Your task to perform on an android device: Go to location settings Image 0: 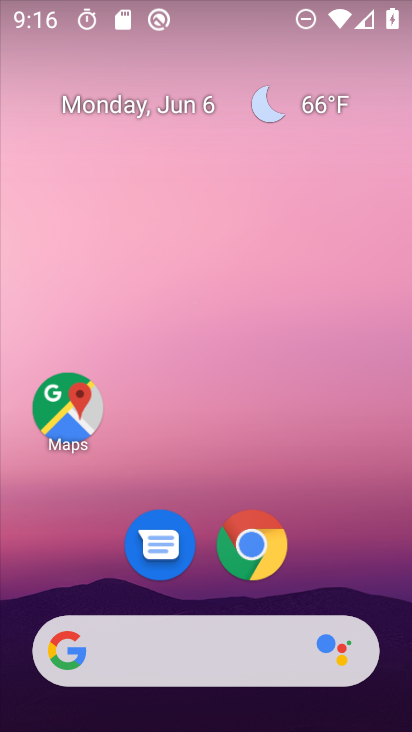
Step 0: drag from (220, 591) to (218, 0)
Your task to perform on an android device: Go to location settings Image 1: 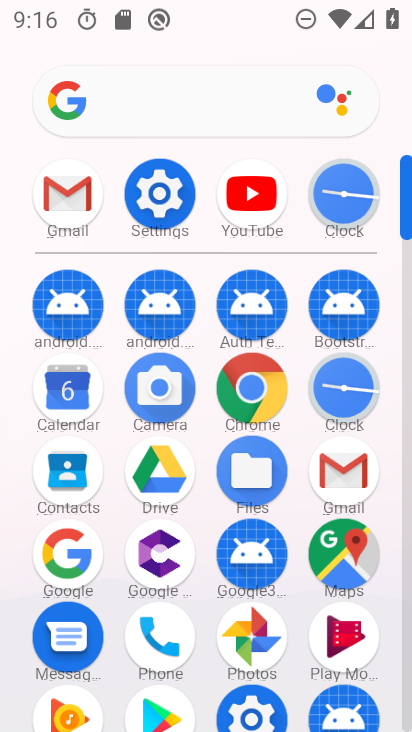
Step 1: click (146, 209)
Your task to perform on an android device: Go to location settings Image 2: 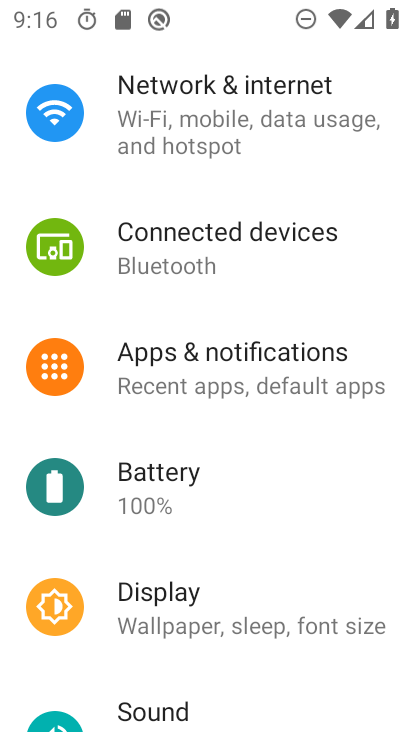
Step 2: drag from (195, 484) to (236, 3)
Your task to perform on an android device: Go to location settings Image 3: 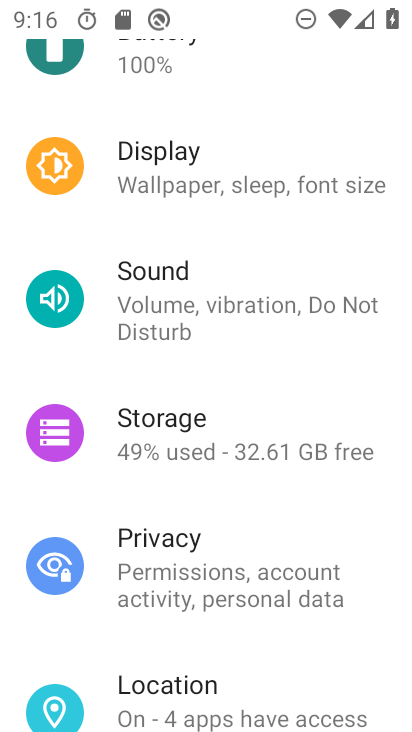
Step 3: click (177, 675)
Your task to perform on an android device: Go to location settings Image 4: 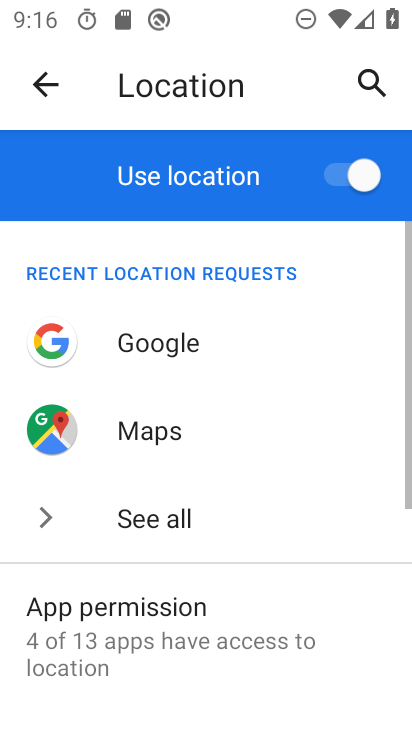
Step 4: task complete